Your task to perform on an android device: Open Youtube and go to "Your channel" Image 0: 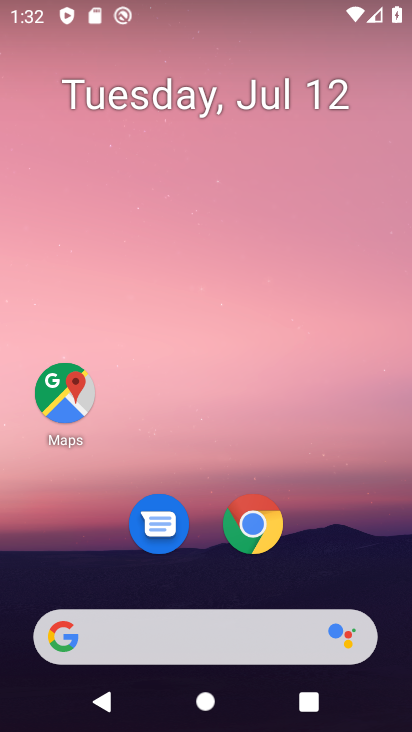
Step 0: drag from (320, 487) to (296, 9)
Your task to perform on an android device: Open Youtube and go to "Your channel" Image 1: 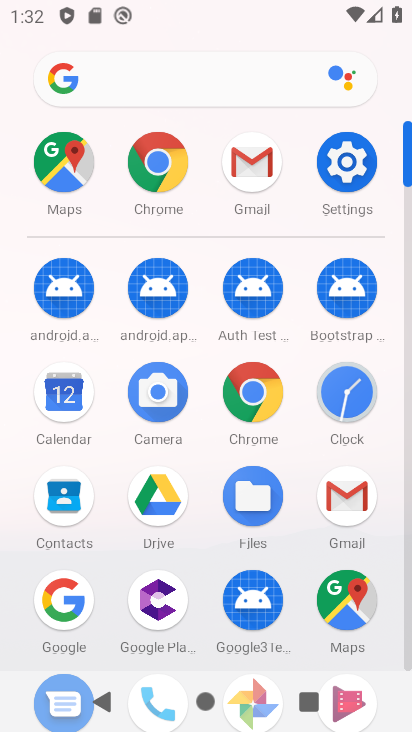
Step 1: drag from (303, 425) to (278, 230)
Your task to perform on an android device: Open Youtube and go to "Your channel" Image 2: 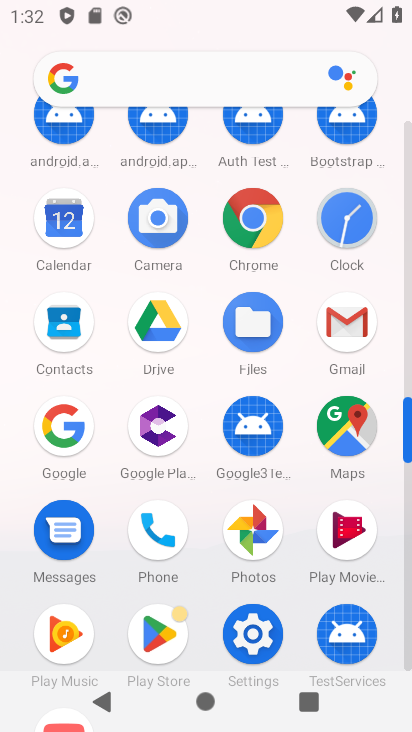
Step 2: drag from (200, 438) to (182, 334)
Your task to perform on an android device: Open Youtube and go to "Your channel" Image 3: 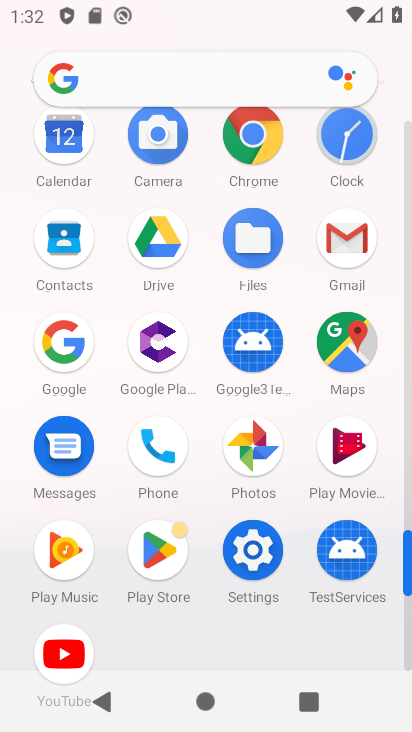
Step 3: click (67, 649)
Your task to perform on an android device: Open Youtube and go to "Your channel" Image 4: 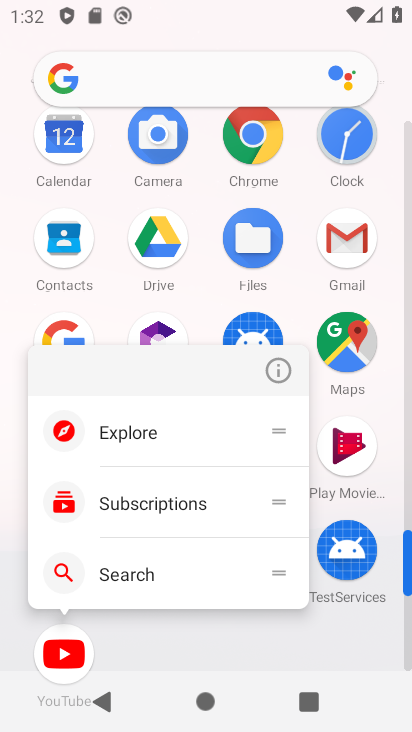
Step 4: click (80, 647)
Your task to perform on an android device: Open Youtube and go to "Your channel" Image 5: 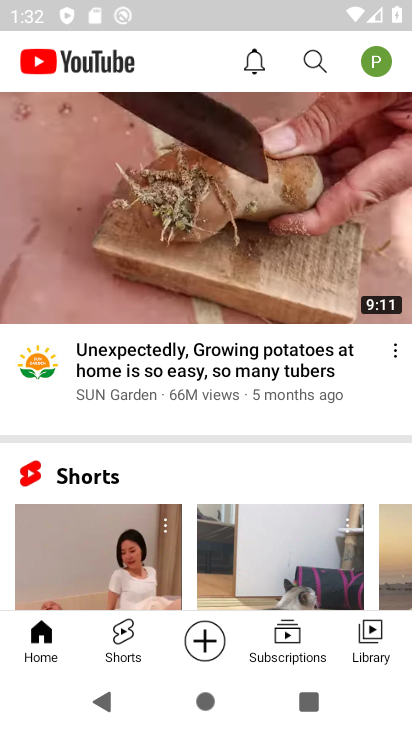
Step 5: click (384, 63)
Your task to perform on an android device: Open Youtube and go to "Your channel" Image 6: 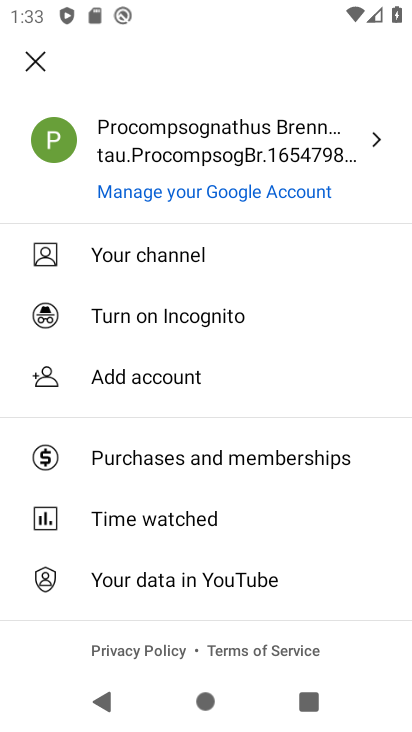
Step 6: click (193, 249)
Your task to perform on an android device: Open Youtube and go to "Your channel" Image 7: 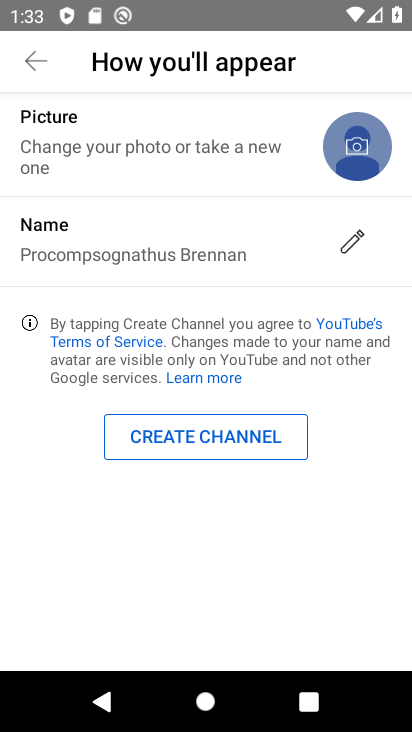
Step 7: task complete